Your task to perform on an android device: Turn on the flashlight Image 0: 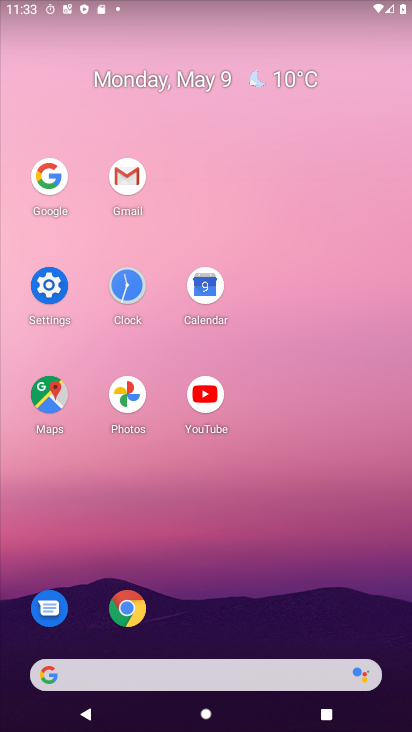
Step 0: drag from (267, 1) to (266, 378)
Your task to perform on an android device: Turn on the flashlight Image 1: 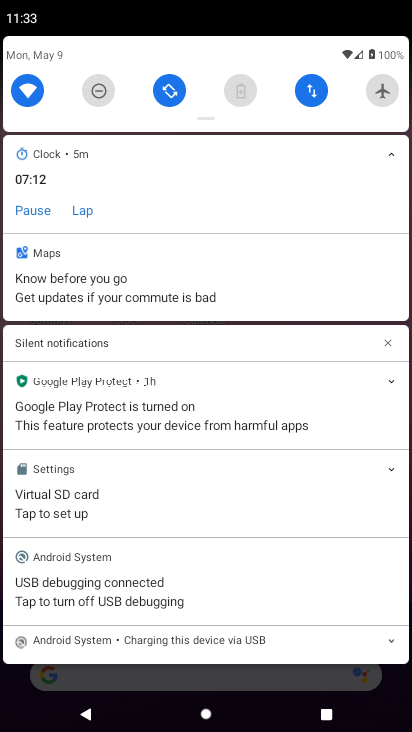
Step 1: task complete